Your task to perform on an android device: Find coffee shops on Maps Image 0: 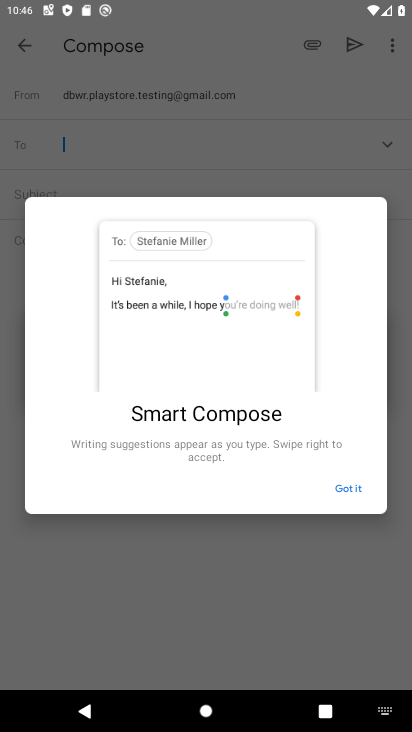
Step 0: press home button
Your task to perform on an android device: Find coffee shops on Maps Image 1: 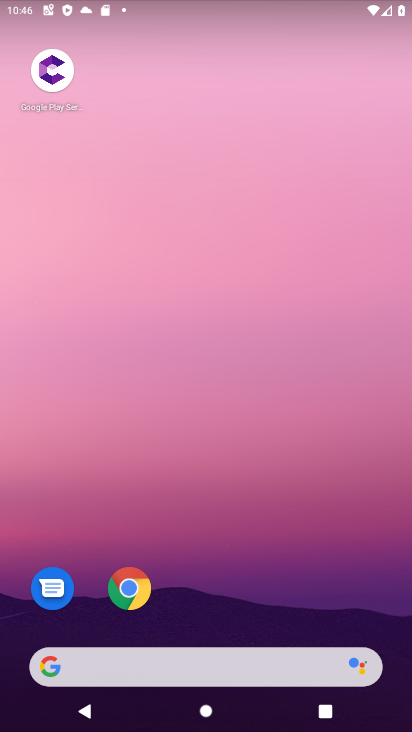
Step 1: drag from (242, 621) to (215, 132)
Your task to perform on an android device: Find coffee shops on Maps Image 2: 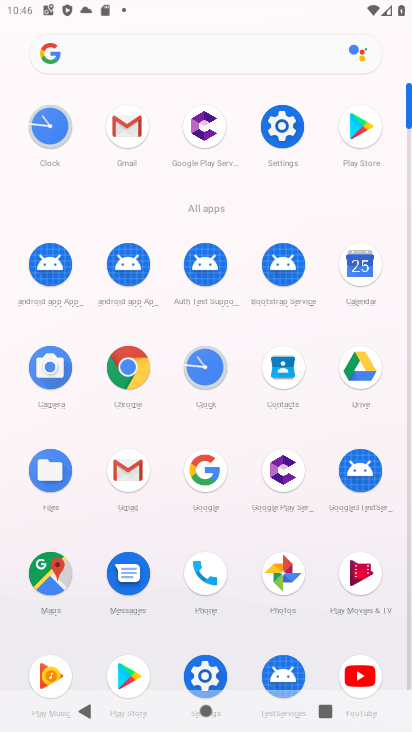
Step 2: click (49, 566)
Your task to perform on an android device: Find coffee shops on Maps Image 3: 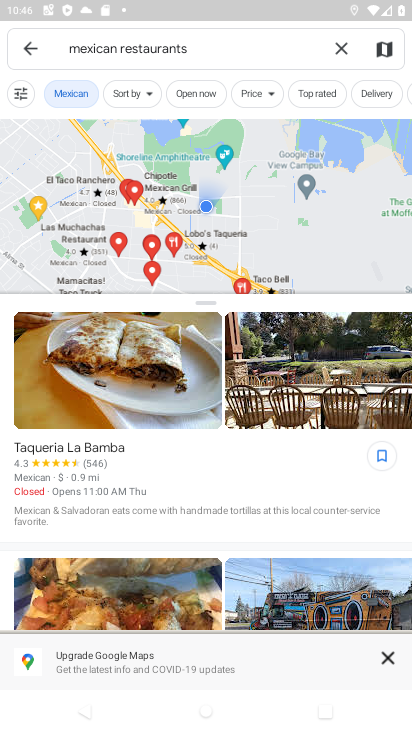
Step 3: click (340, 50)
Your task to perform on an android device: Find coffee shops on Maps Image 4: 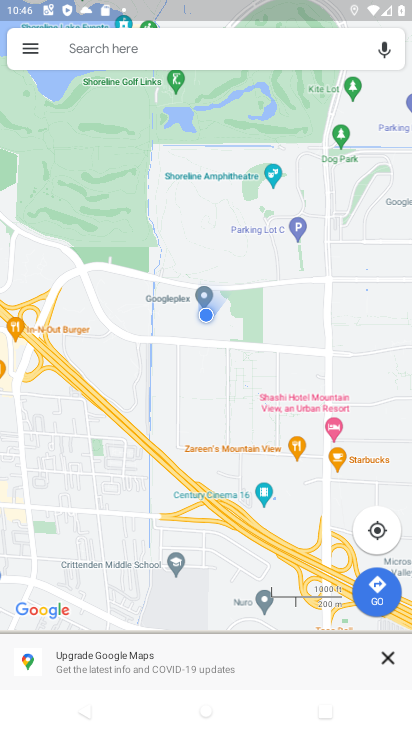
Step 4: click (205, 45)
Your task to perform on an android device: Find coffee shops on Maps Image 5: 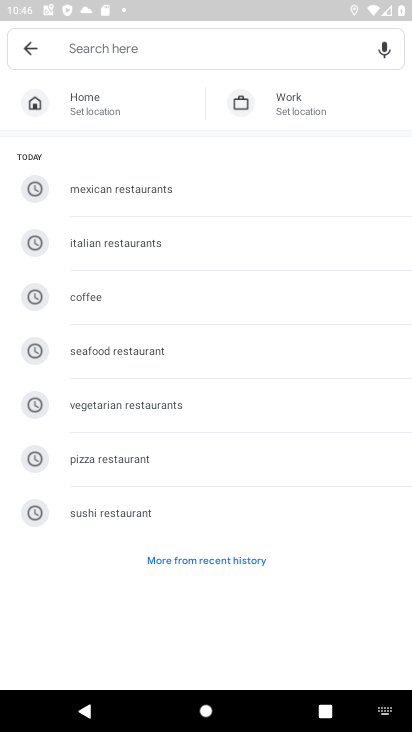
Step 5: click (99, 300)
Your task to perform on an android device: Find coffee shops on Maps Image 6: 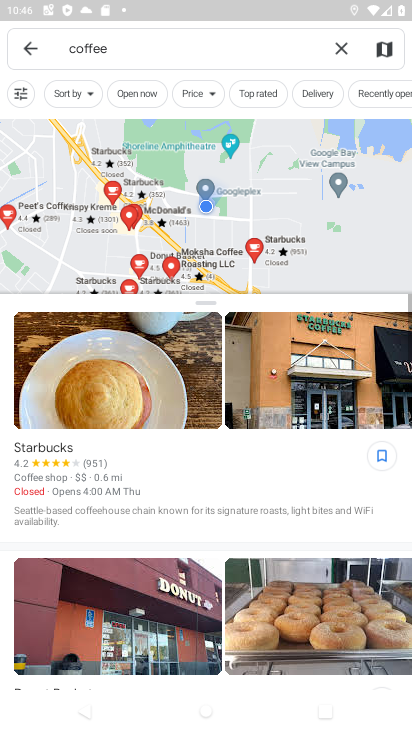
Step 6: task complete